Your task to perform on an android device: read, delete, or share a saved page in the chrome app Image 0: 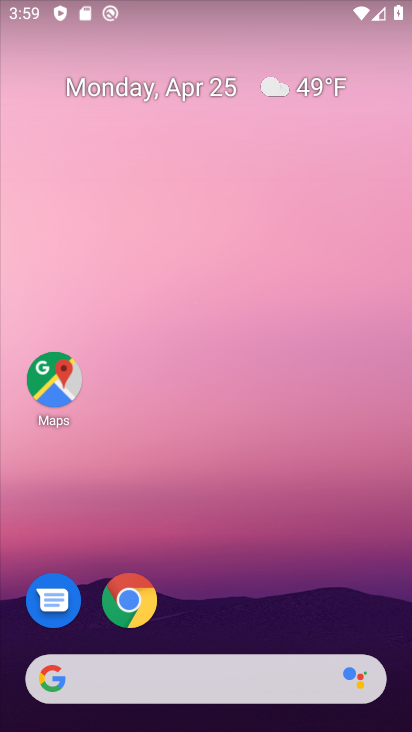
Step 0: click (126, 604)
Your task to perform on an android device: read, delete, or share a saved page in the chrome app Image 1: 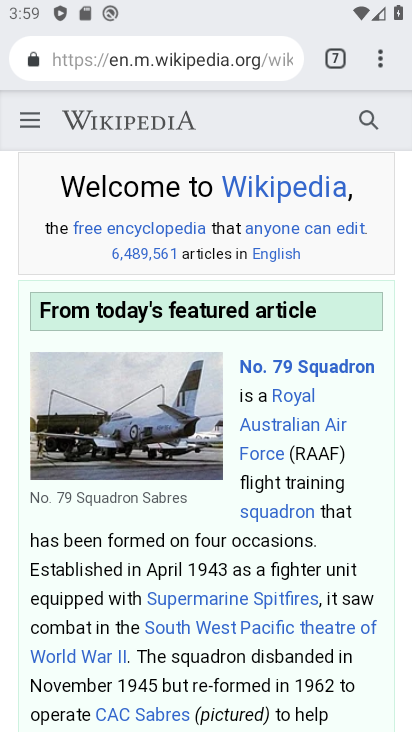
Step 1: click (375, 56)
Your task to perform on an android device: read, delete, or share a saved page in the chrome app Image 2: 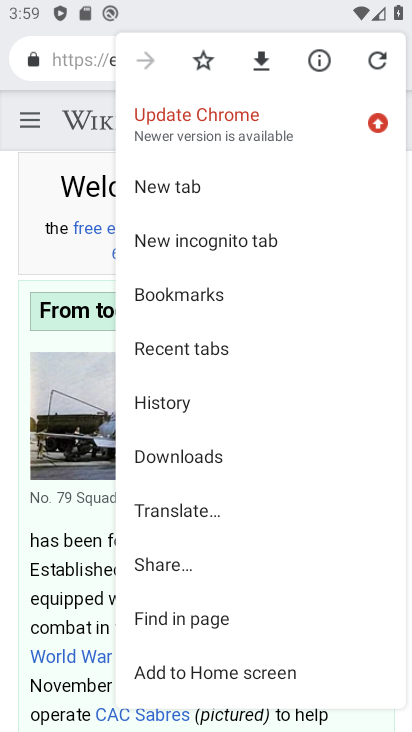
Step 2: click (198, 449)
Your task to perform on an android device: read, delete, or share a saved page in the chrome app Image 3: 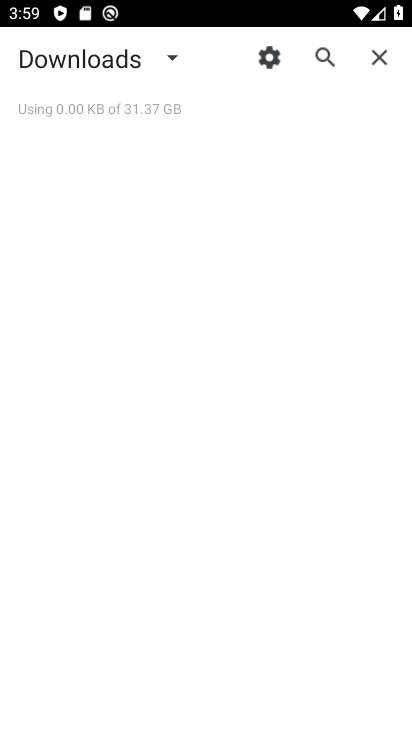
Step 3: task complete